Your task to perform on an android device: Go to network settings Image 0: 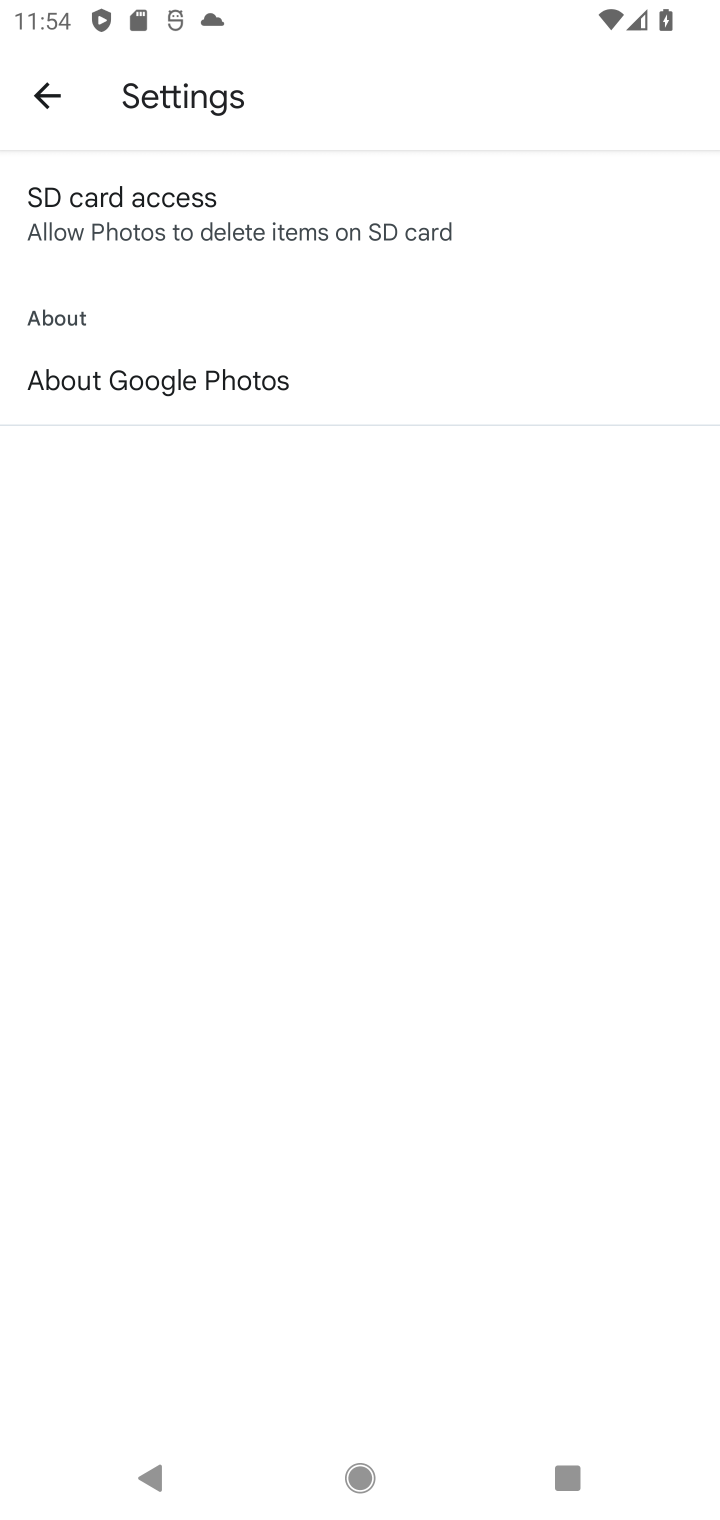
Step 0: press home button
Your task to perform on an android device: Go to network settings Image 1: 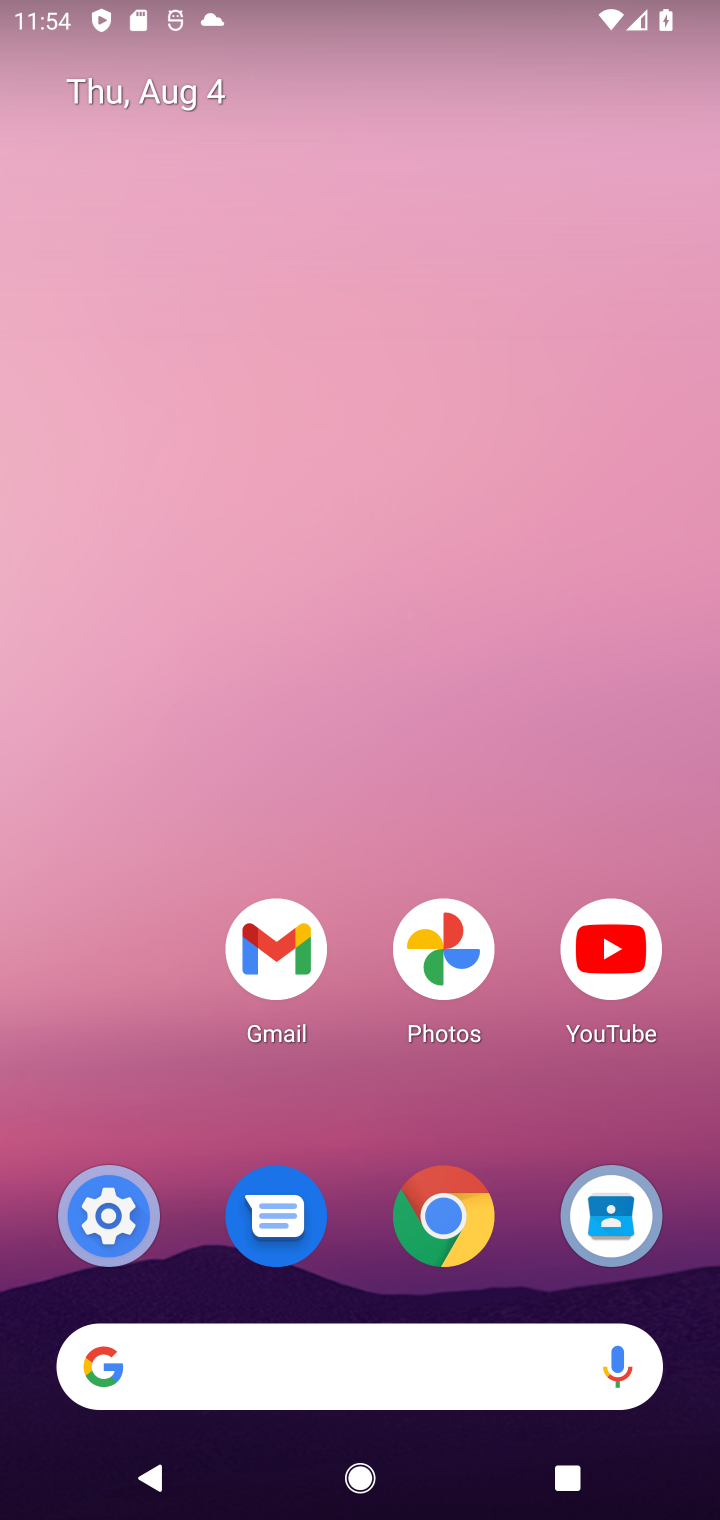
Step 1: drag from (343, 1363) to (293, 368)
Your task to perform on an android device: Go to network settings Image 2: 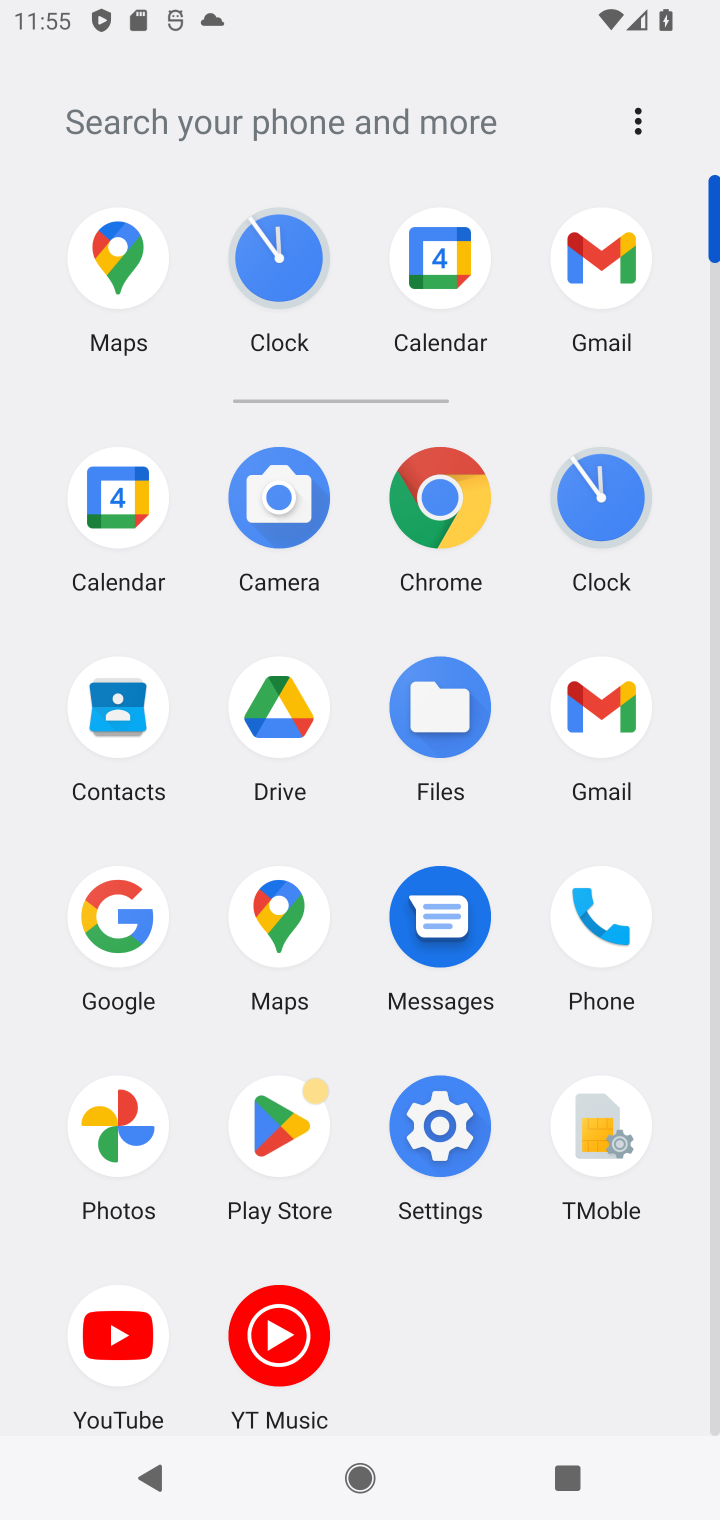
Step 2: click (439, 1127)
Your task to perform on an android device: Go to network settings Image 3: 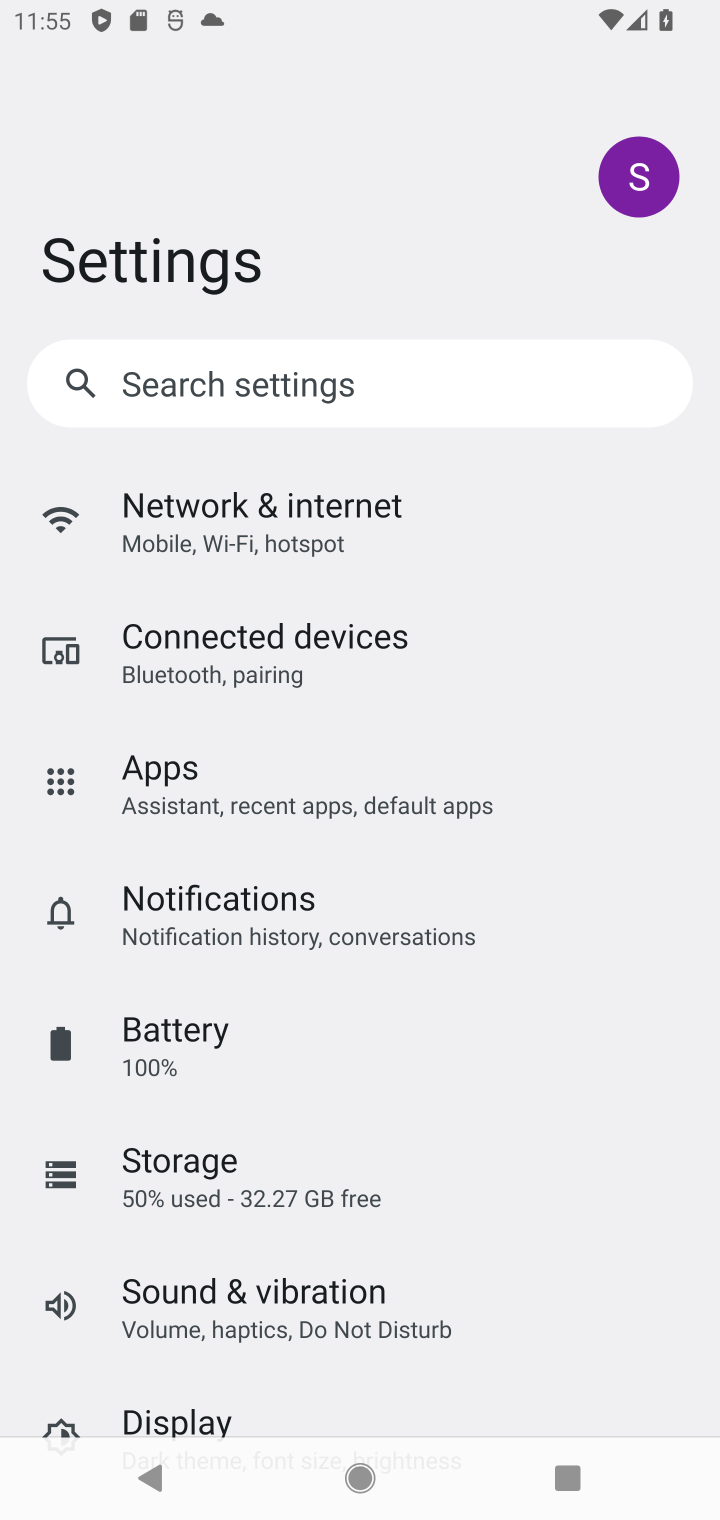
Step 3: click (313, 505)
Your task to perform on an android device: Go to network settings Image 4: 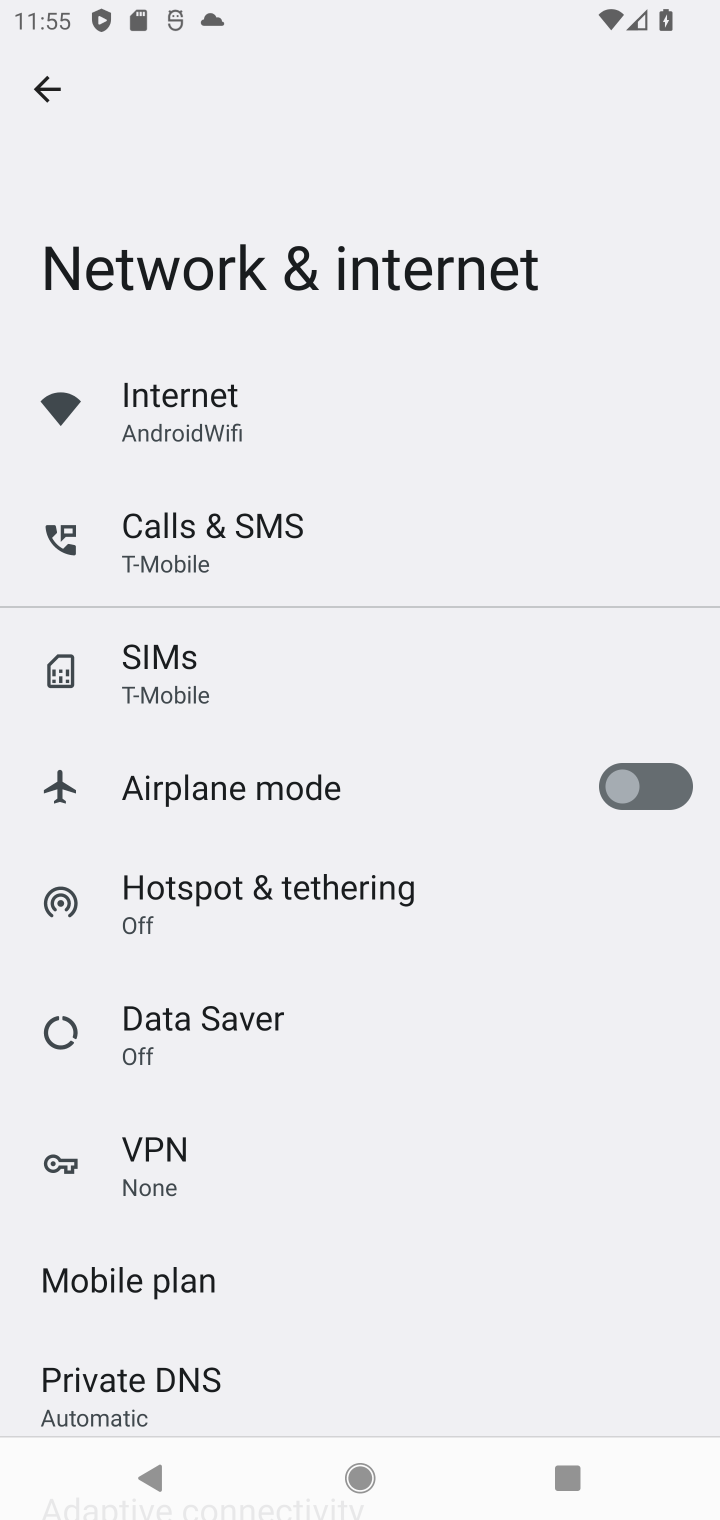
Step 4: click (169, 423)
Your task to perform on an android device: Go to network settings Image 5: 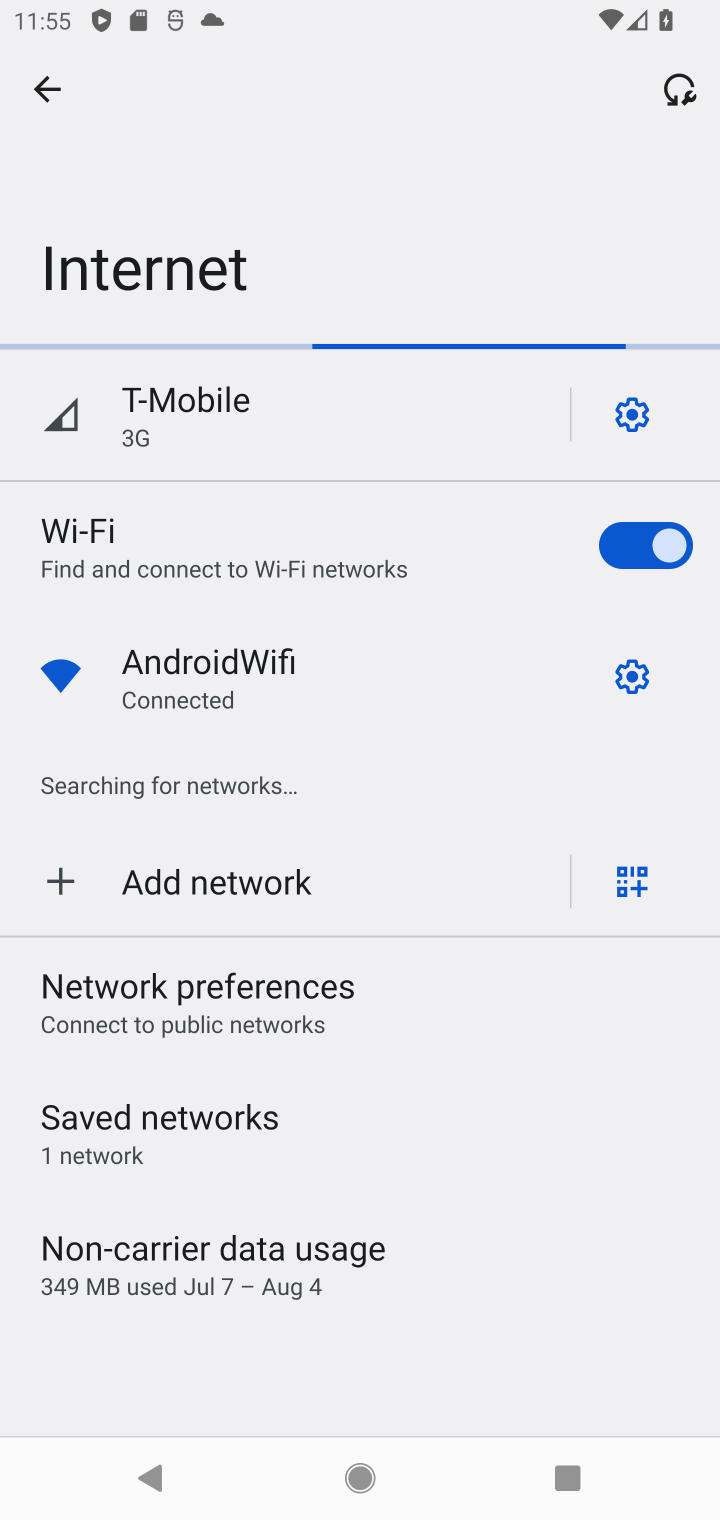
Step 5: task complete